Your task to perform on an android device: add a label to a message in the gmail app Image 0: 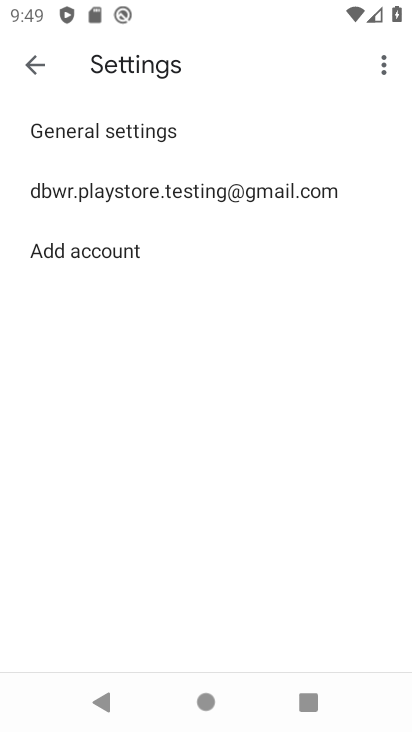
Step 0: press back button
Your task to perform on an android device: add a label to a message in the gmail app Image 1: 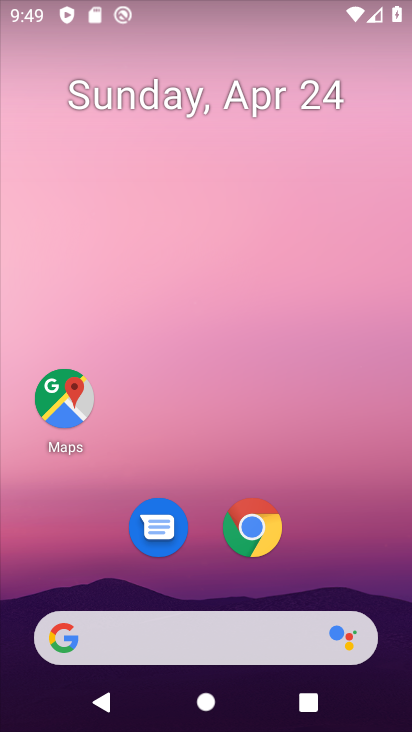
Step 1: drag from (213, 597) to (291, 24)
Your task to perform on an android device: add a label to a message in the gmail app Image 2: 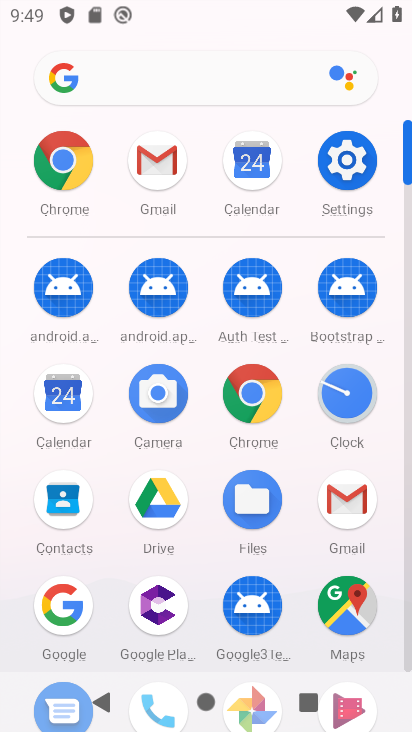
Step 2: click (145, 148)
Your task to perform on an android device: add a label to a message in the gmail app Image 3: 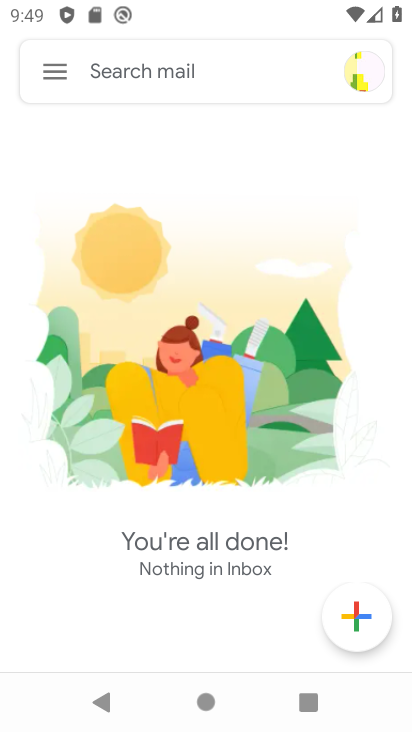
Step 3: click (47, 67)
Your task to perform on an android device: add a label to a message in the gmail app Image 4: 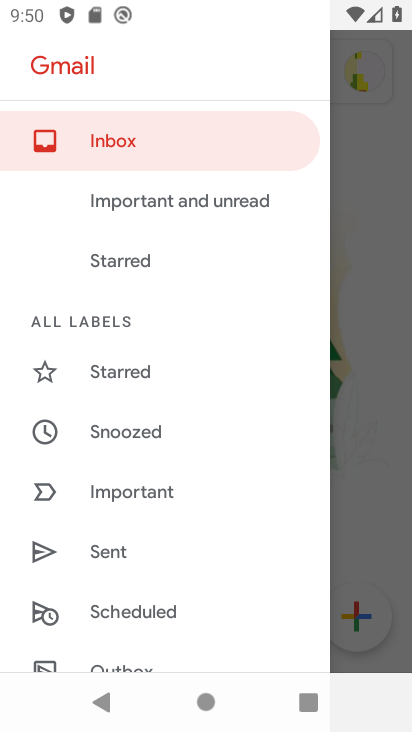
Step 4: drag from (148, 640) to (262, 109)
Your task to perform on an android device: add a label to a message in the gmail app Image 5: 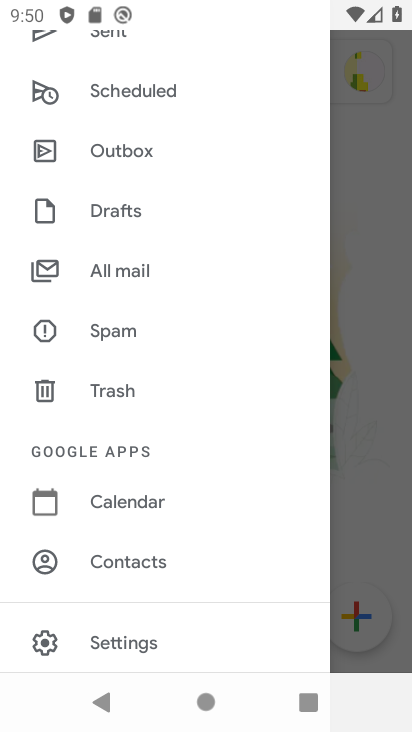
Step 5: click (119, 272)
Your task to perform on an android device: add a label to a message in the gmail app Image 6: 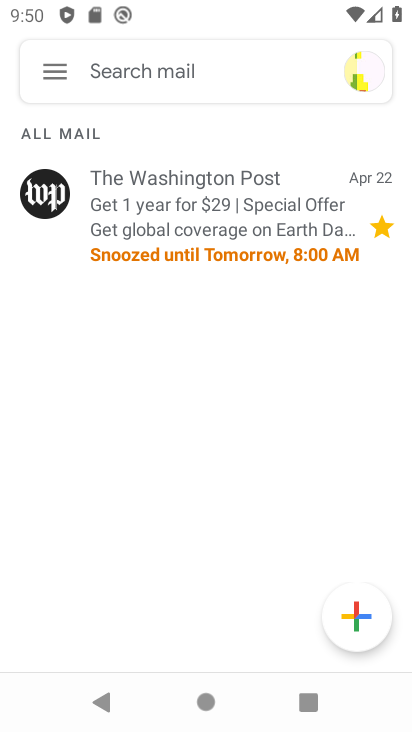
Step 6: click (176, 201)
Your task to perform on an android device: add a label to a message in the gmail app Image 7: 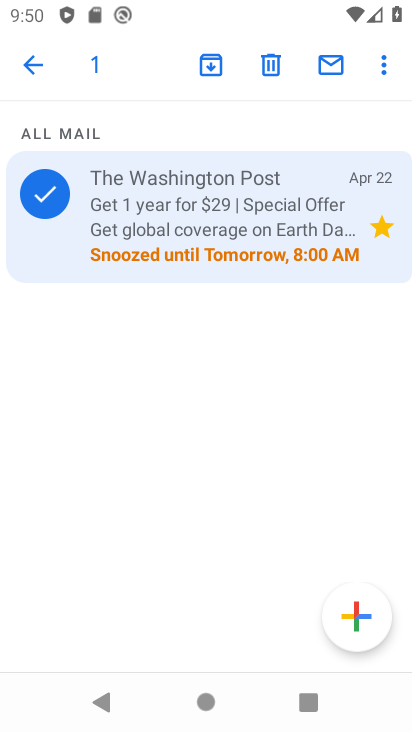
Step 7: click (383, 59)
Your task to perform on an android device: add a label to a message in the gmail app Image 8: 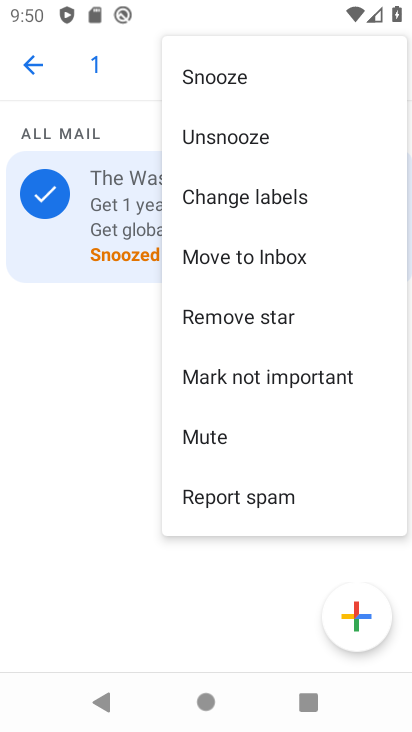
Step 8: click (234, 194)
Your task to perform on an android device: add a label to a message in the gmail app Image 9: 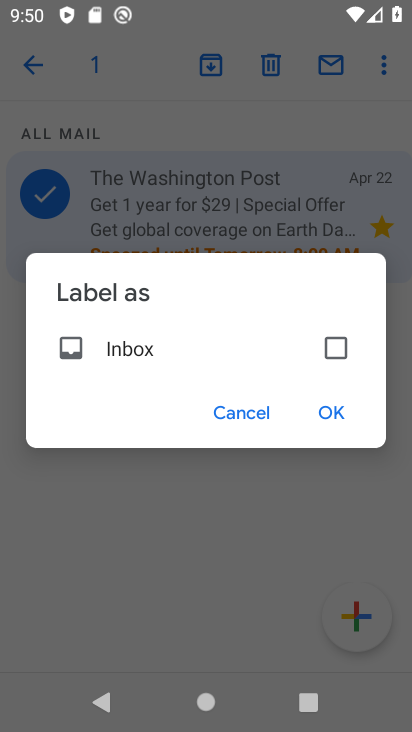
Step 9: click (328, 347)
Your task to perform on an android device: add a label to a message in the gmail app Image 10: 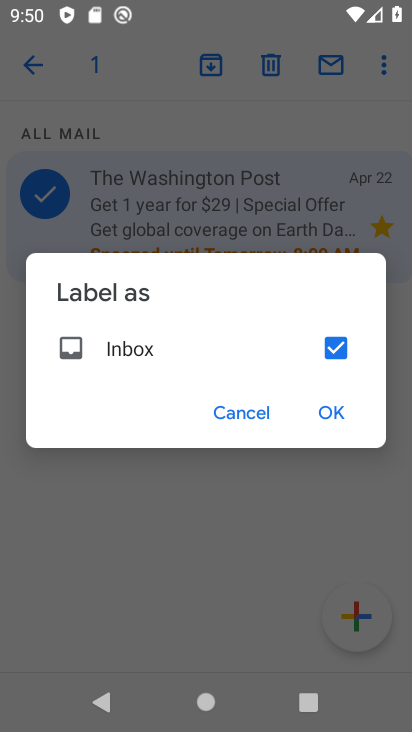
Step 10: click (335, 408)
Your task to perform on an android device: add a label to a message in the gmail app Image 11: 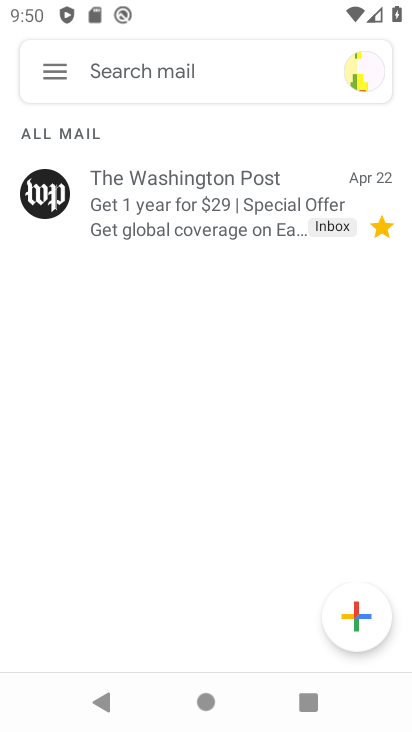
Step 11: task complete